Your task to perform on an android device: toggle priority inbox in the gmail app Image 0: 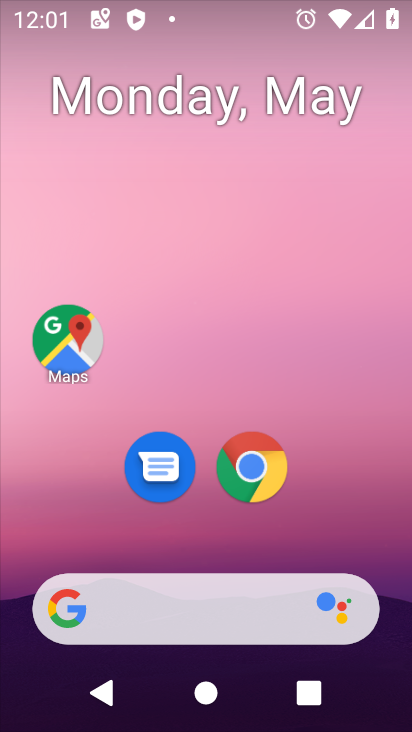
Step 0: drag from (364, 574) to (345, 31)
Your task to perform on an android device: toggle priority inbox in the gmail app Image 1: 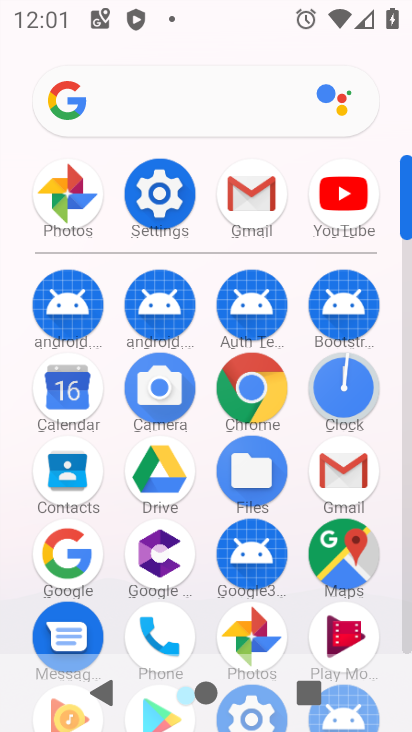
Step 1: click (247, 191)
Your task to perform on an android device: toggle priority inbox in the gmail app Image 2: 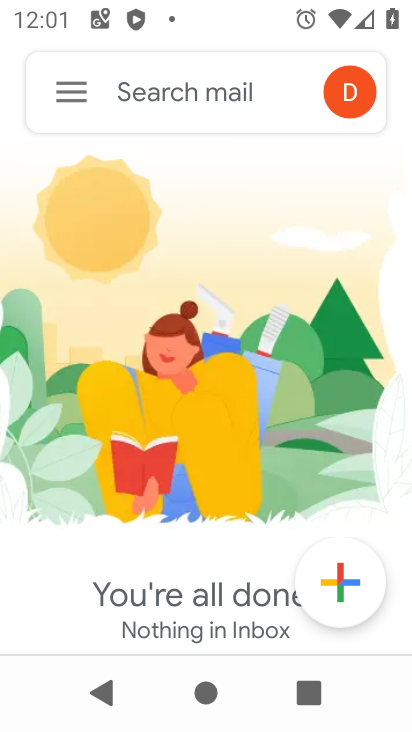
Step 2: click (69, 101)
Your task to perform on an android device: toggle priority inbox in the gmail app Image 3: 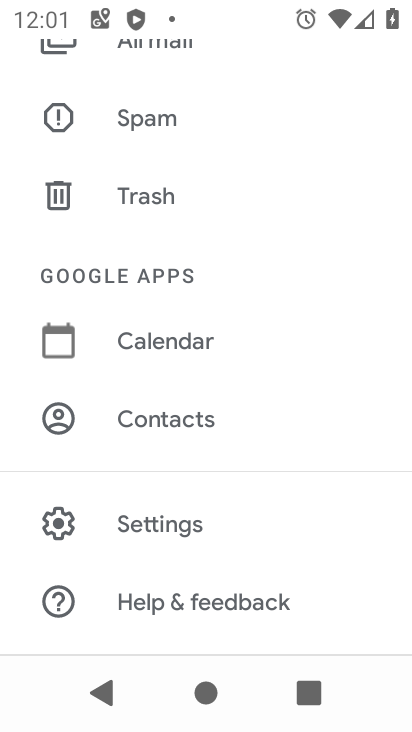
Step 3: click (200, 533)
Your task to perform on an android device: toggle priority inbox in the gmail app Image 4: 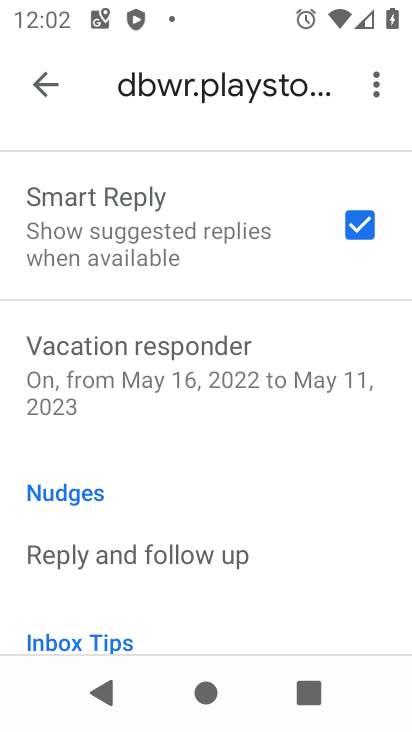
Step 4: drag from (190, 292) to (253, 730)
Your task to perform on an android device: toggle priority inbox in the gmail app Image 5: 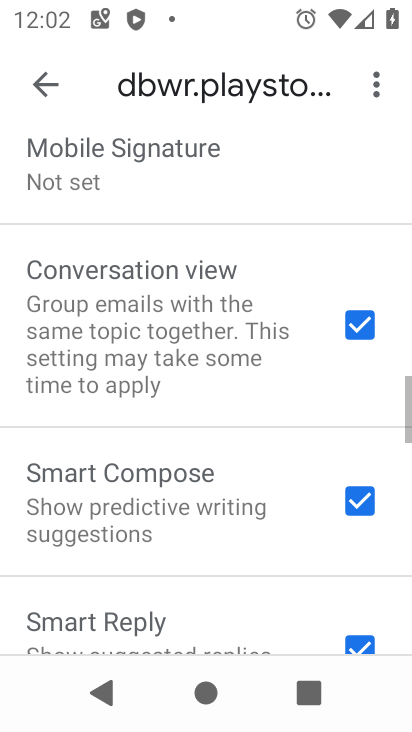
Step 5: drag from (164, 345) to (221, 731)
Your task to perform on an android device: toggle priority inbox in the gmail app Image 6: 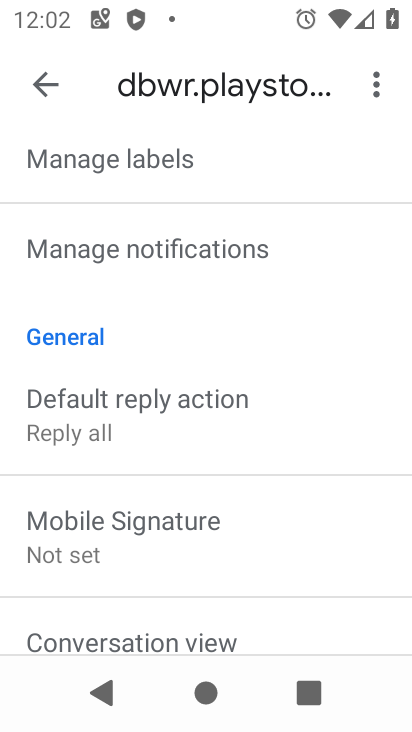
Step 6: drag from (142, 357) to (194, 637)
Your task to perform on an android device: toggle priority inbox in the gmail app Image 7: 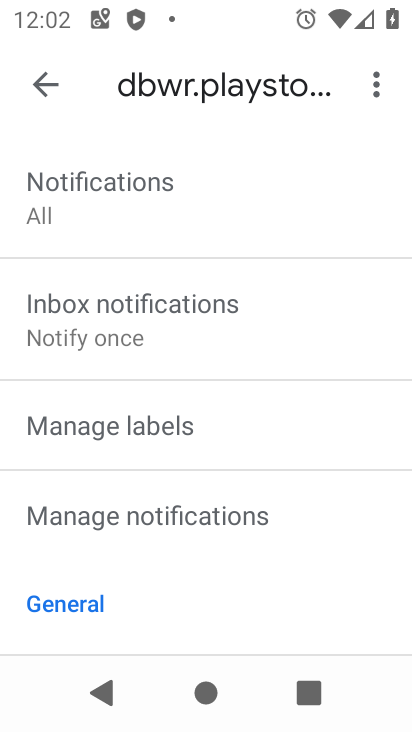
Step 7: drag from (137, 346) to (168, 566)
Your task to perform on an android device: toggle priority inbox in the gmail app Image 8: 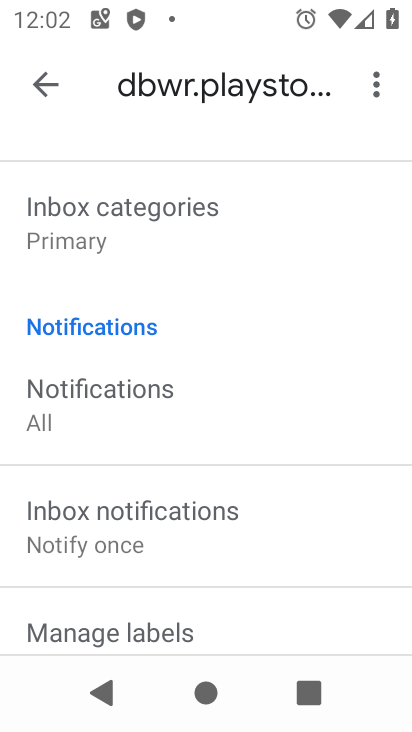
Step 8: drag from (201, 374) to (247, 556)
Your task to perform on an android device: toggle priority inbox in the gmail app Image 9: 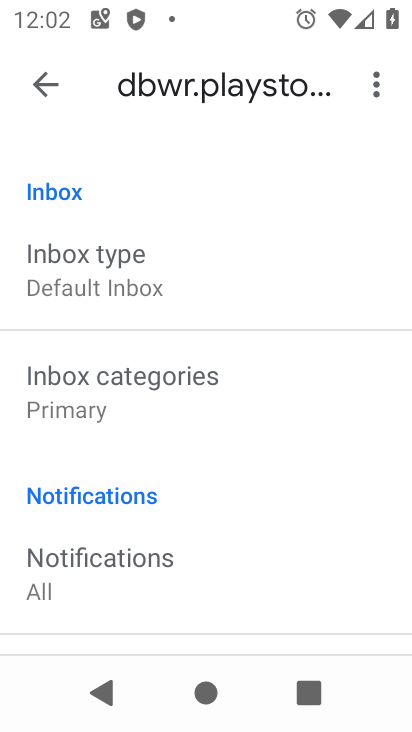
Step 9: click (70, 288)
Your task to perform on an android device: toggle priority inbox in the gmail app Image 10: 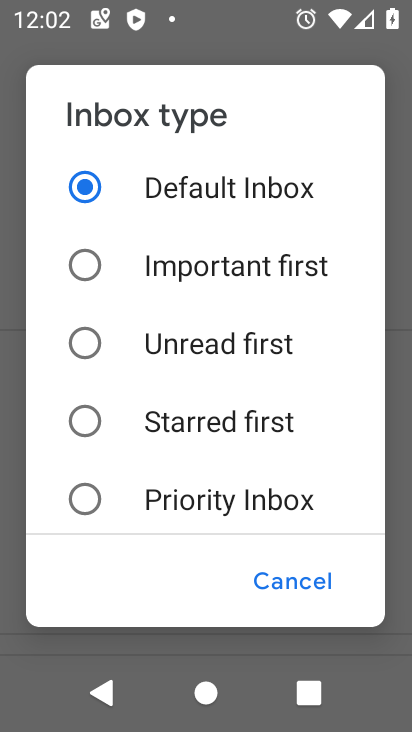
Step 10: click (86, 507)
Your task to perform on an android device: toggle priority inbox in the gmail app Image 11: 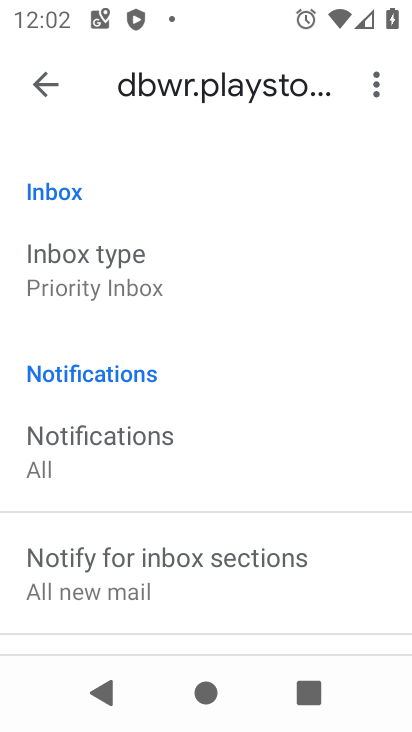
Step 11: task complete